Your task to perform on an android device: Go to location settings Image 0: 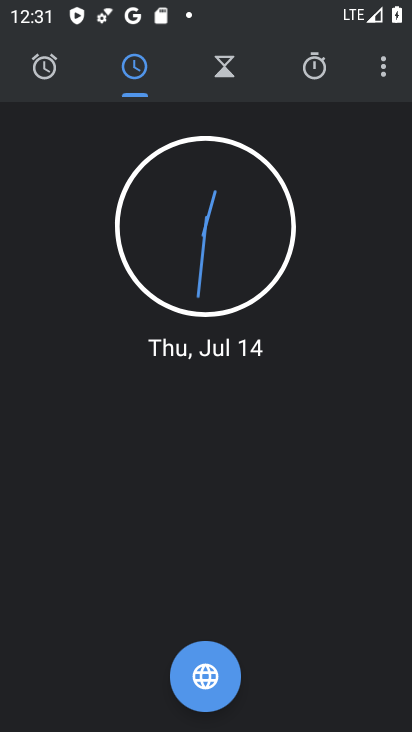
Step 0: press home button
Your task to perform on an android device: Go to location settings Image 1: 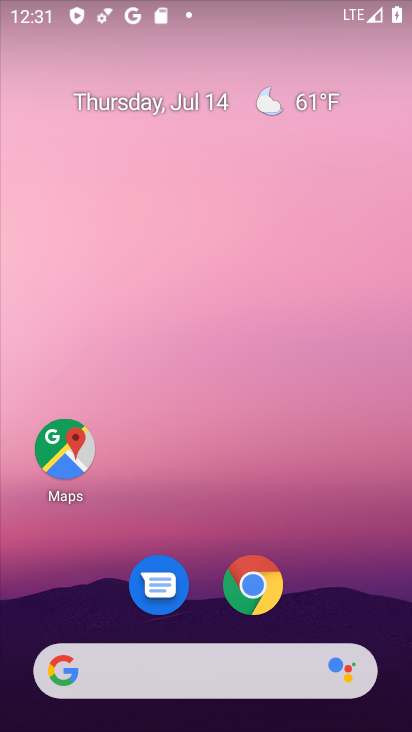
Step 1: drag from (315, 563) to (379, 65)
Your task to perform on an android device: Go to location settings Image 2: 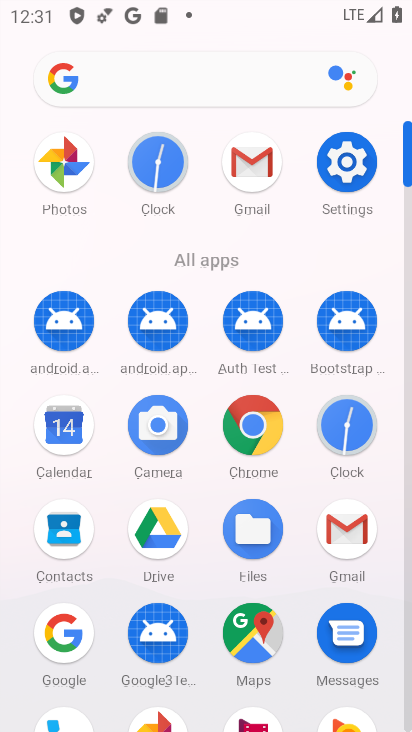
Step 2: click (346, 140)
Your task to perform on an android device: Go to location settings Image 3: 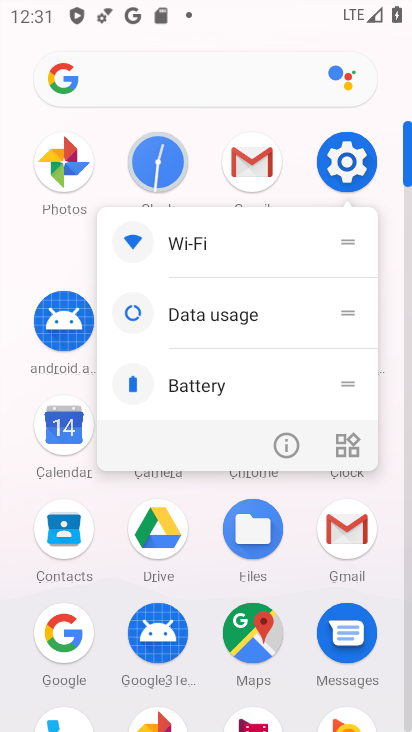
Step 3: click (346, 148)
Your task to perform on an android device: Go to location settings Image 4: 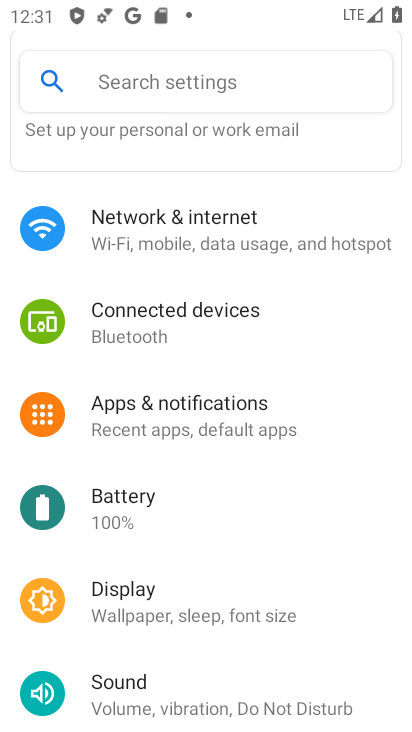
Step 4: drag from (222, 547) to (217, 152)
Your task to perform on an android device: Go to location settings Image 5: 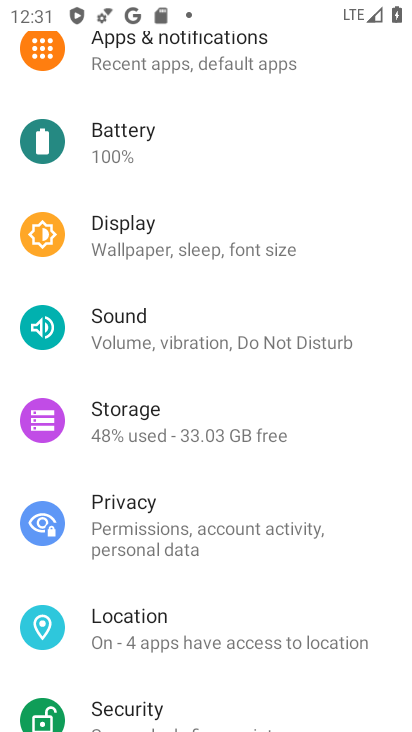
Step 5: click (177, 631)
Your task to perform on an android device: Go to location settings Image 6: 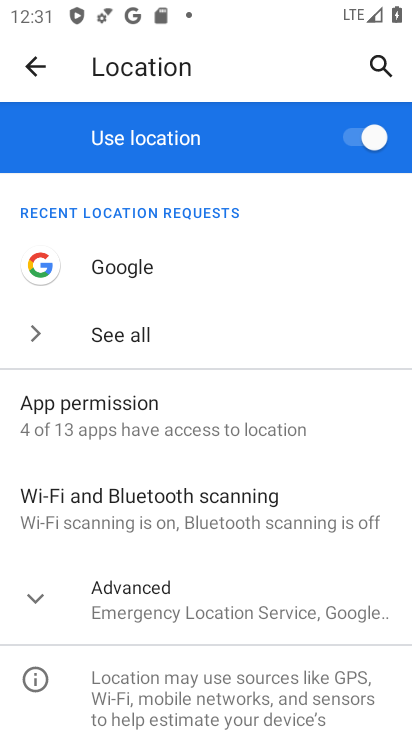
Step 6: task complete